Your task to perform on an android device: Open the stopwatch Image 0: 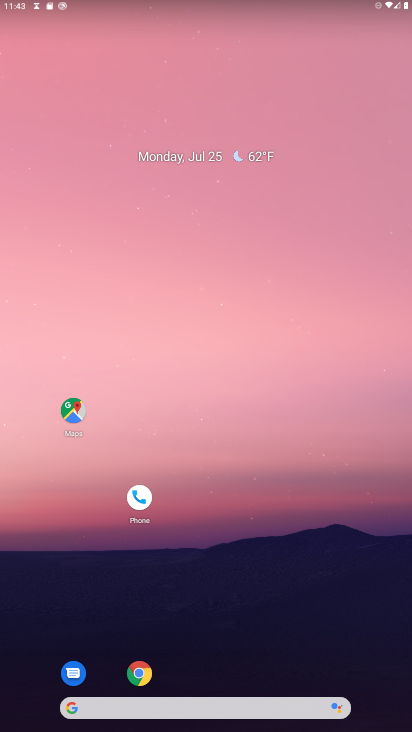
Step 0: press home button
Your task to perform on an android device: Open the stopwatch Image 1: 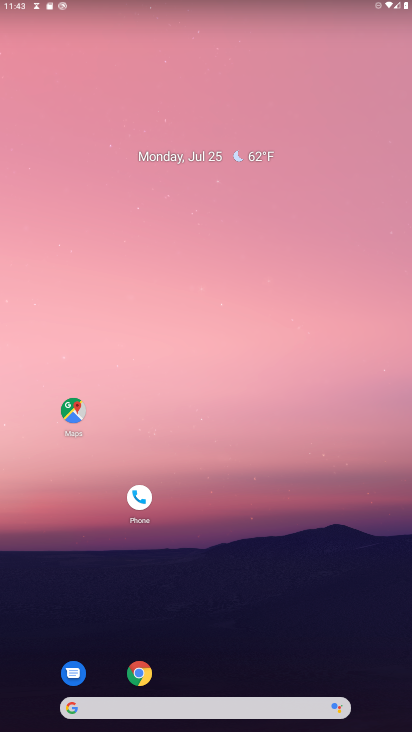
Step 1: drag from (215, 628) to (237, 37)
Your task to perform on an android device: Open the stopwatch Image 2: 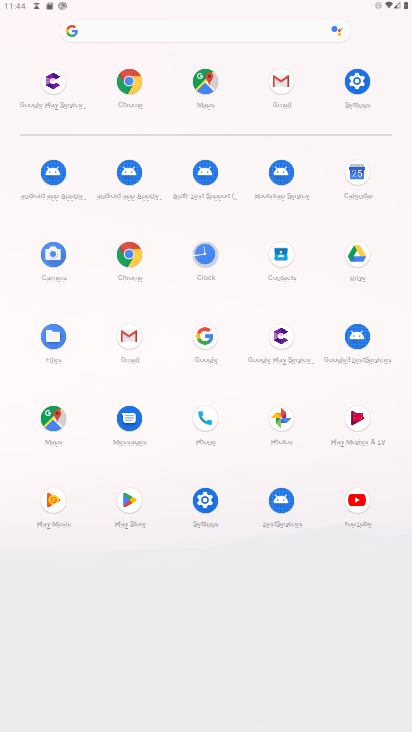
Step 2: click (207, 248)
Your task to perform on an android device: Open the stopwatch Image 3: 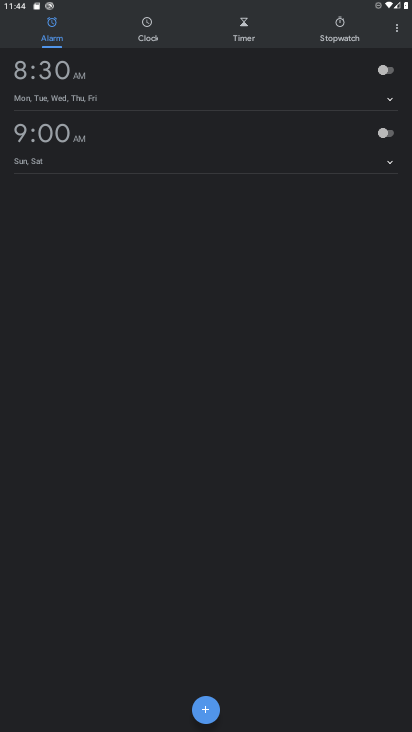
Step 3: click (340, 23)
Your task to perform on an android device: Open the stopwatch Image 4: 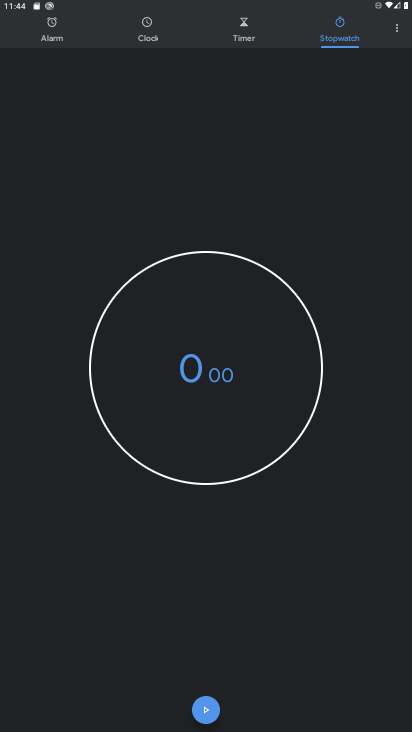
Step 4: task complete